Your task to perform on an android device: turn on notifications settings in the gmail app Image 0: 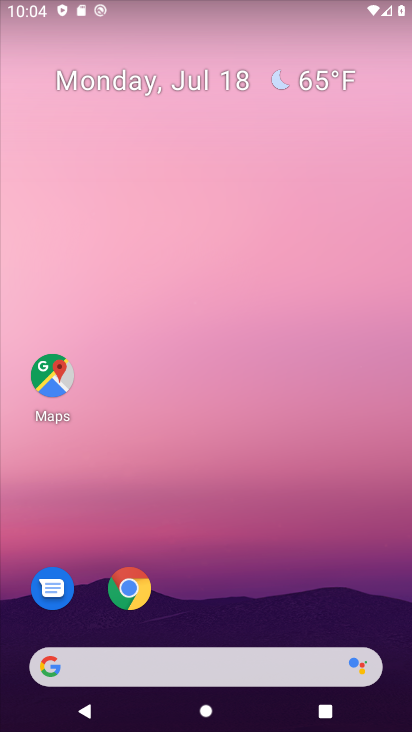
Step 0: press home button
Your task to perform on an android device: turn on notifications settings in the gmail app Image 1: 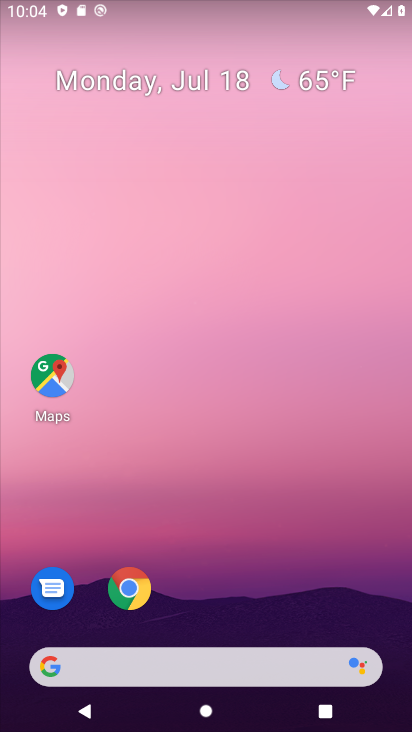
Step 1: drag from (254, 624) to (215, 10)
Your task to perform on an android device: turn on notifications settings in the gmail app Image 2: 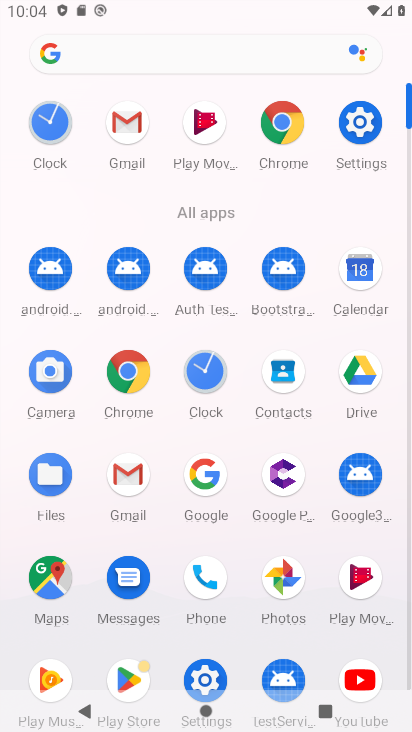
Step 2: click (130, 127)
Your task to perform on an android device: turn on notifications settings in the gmail app Image 3: 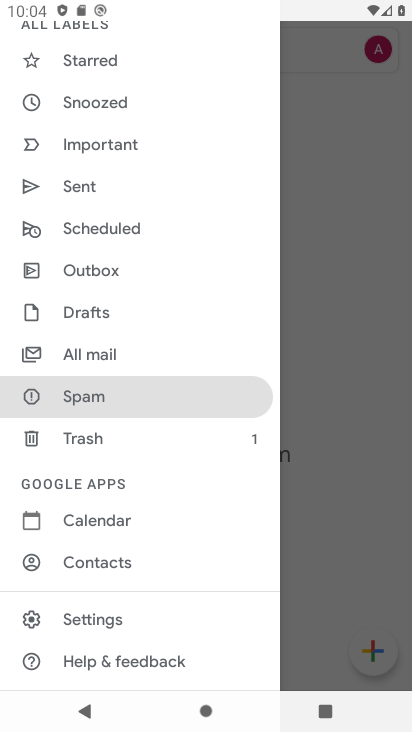
Step 3: click (104, 615)
Your task to perform on an android device: turn on notifications settings in the gmail app Image 4: 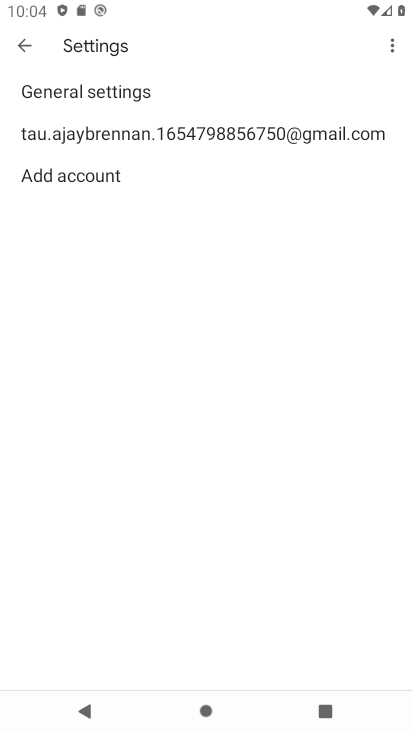
Step 4: click (58, 135)
Your task to perform on an android device: turn on notifications settings in the gmail app Image 5: 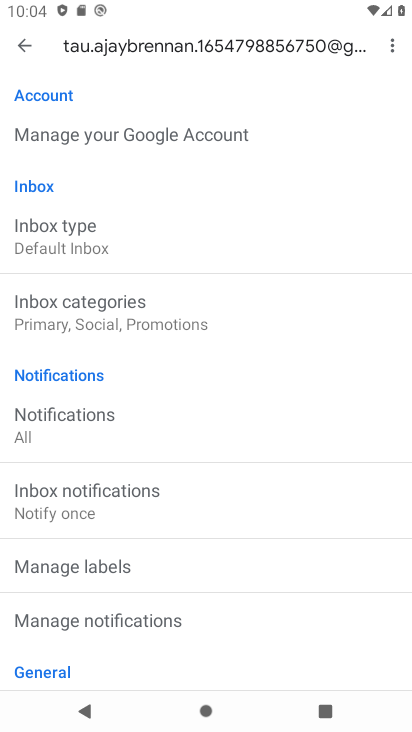
Step 5: click (88, 620)
Your task to perform on an android device: turn on notifications settings in the gmail app Image 6: 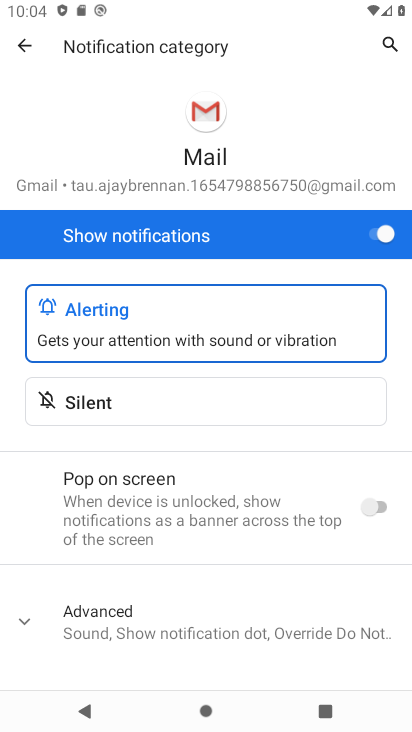
Step 6: task complete